Your task to perform on an android device: Open Android settings Image 0: 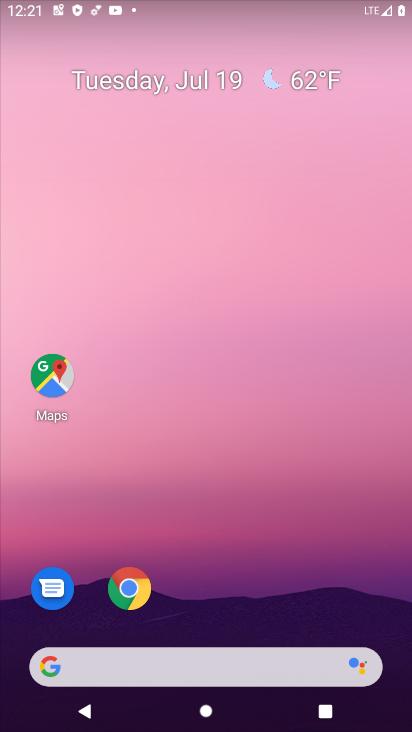
Step 0: drag from (223, 600) to (223, 21)
Your task to perform on an android device: Open Android settings Image 1: 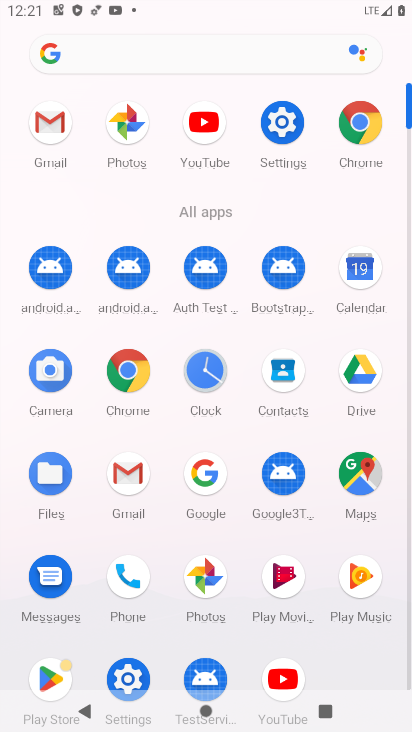
Step 1: click (292, 114)
Your task to perform on an android device: Open Android settings Image 2: 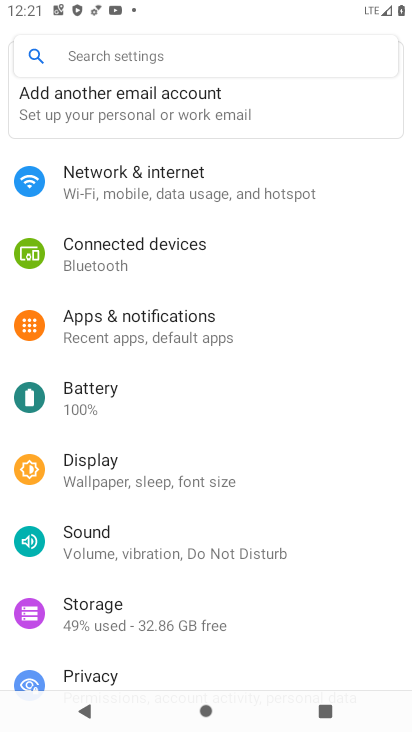
Step 2: drag from (169, 448) to (162, 238)
Your task to perform on an android device: Open Android settings Image 3: 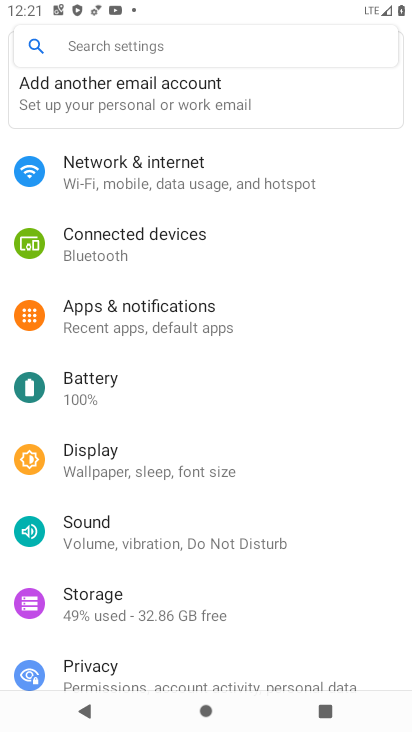
Step 3: drag from (151, 586) to (151, 37)
Your task to perform on an android device: Open Android settings Image 4: 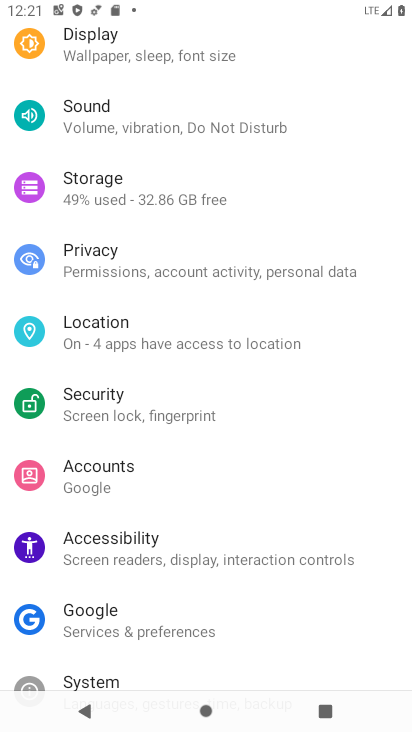
Step 4: click (99, 684)
Your task to perform on an android device: Open Android settings Image 5: 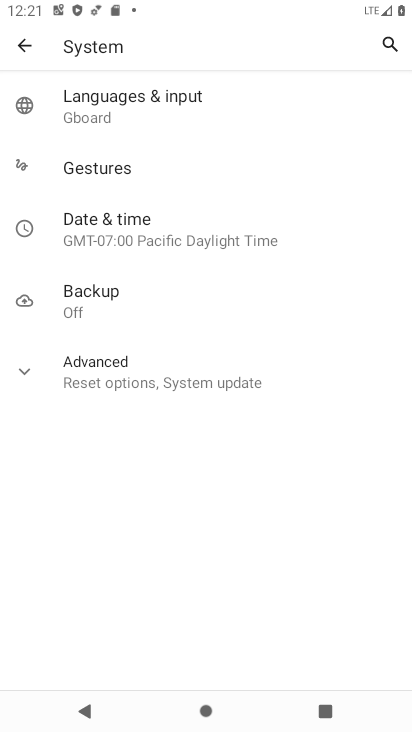
Step 5: task complete